Your task to perform on an android device: Open sound settings Image 0: 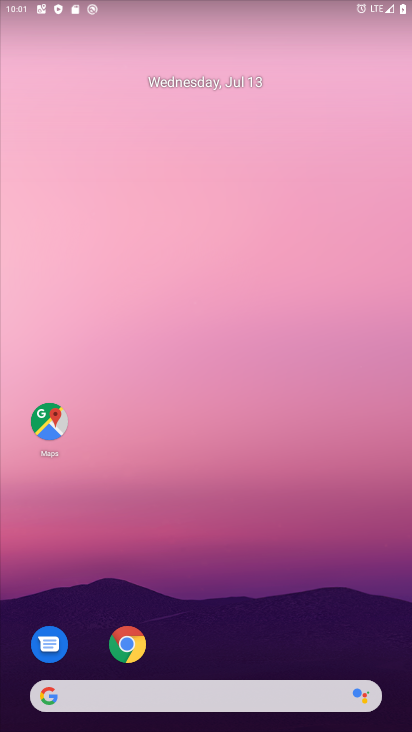
Step 0: drag from (223, 709) to (223, 109)
Your task to perform on an android device: Open sound settings Image 1: 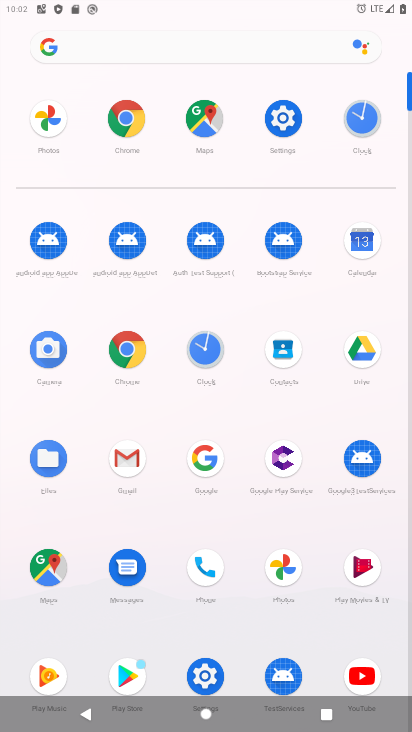
Step 1: click (285, 114)
Your task to perform on an android device: Open sound settings Image 2: 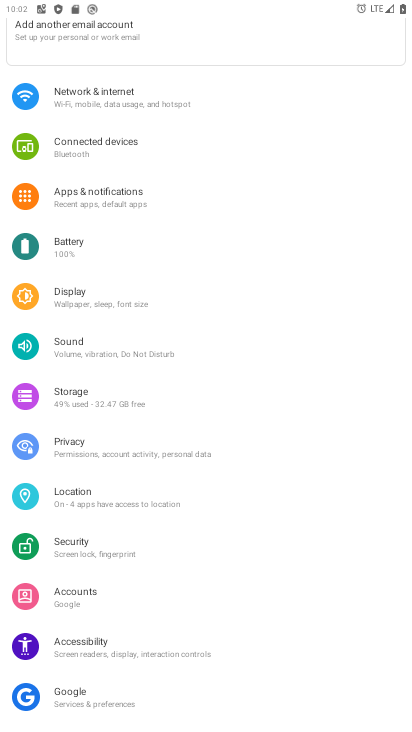
Step 2: click (77, 344)
Your task to perform on an android device: Open sound settings Image 3: 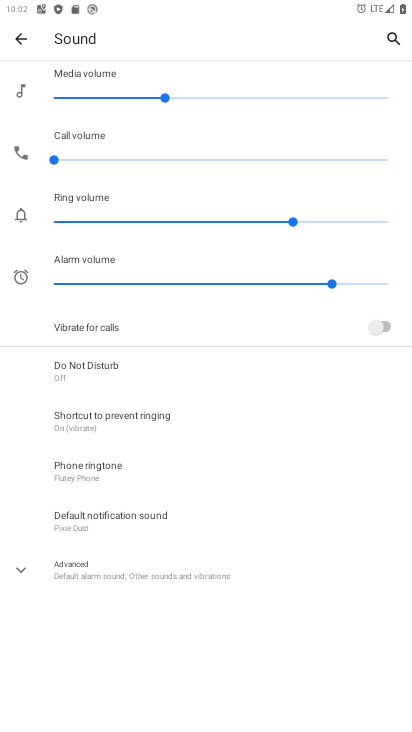
Step 3: task complete